Your task to perform on an android device: turn pop-ups on in chrome Image 0: 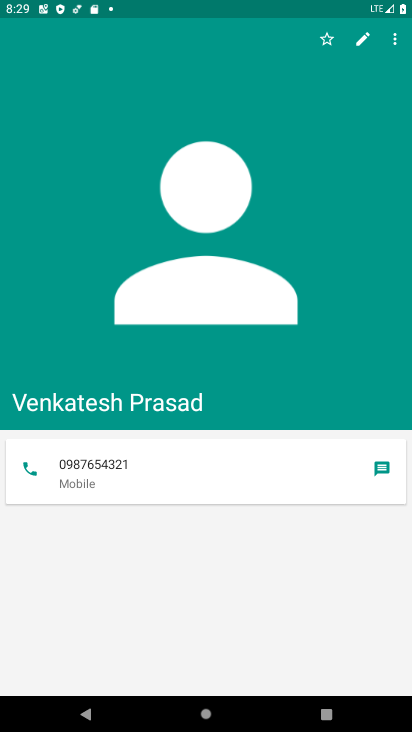
Step 0: press home button
Your task to perform on an android device: turn pop-ups on in chrome Image 1: 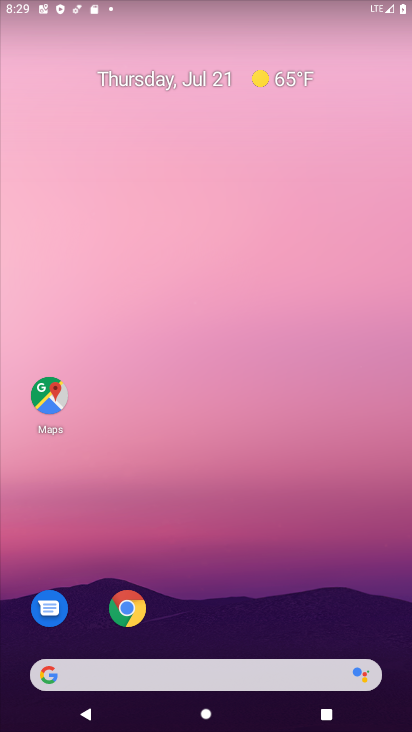
Step 1: click (125, 610)
Your task to perform on an android device: turn pop-ups on in chrome Image 2: 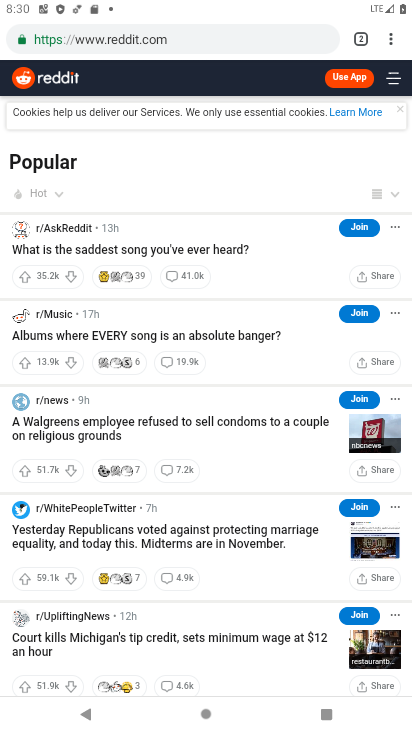
Step 2: click (390, 38)
Your task to perform on an android device: turn pop-ups on in chrome Image 3: 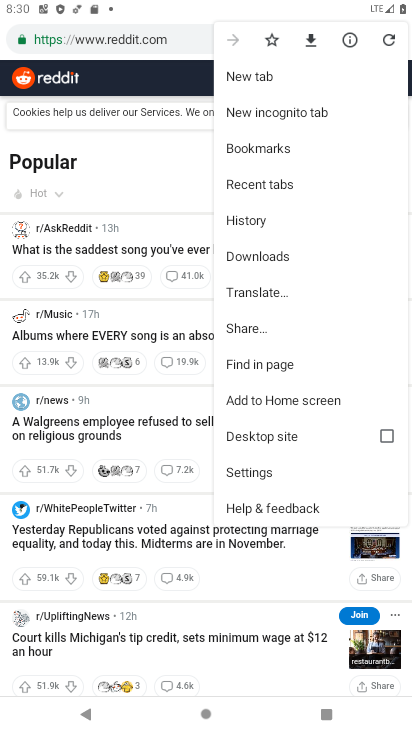
Step 3: click (254, 471)
Your task to perform on an android device: turn pop-ups on in chrome Image 4: 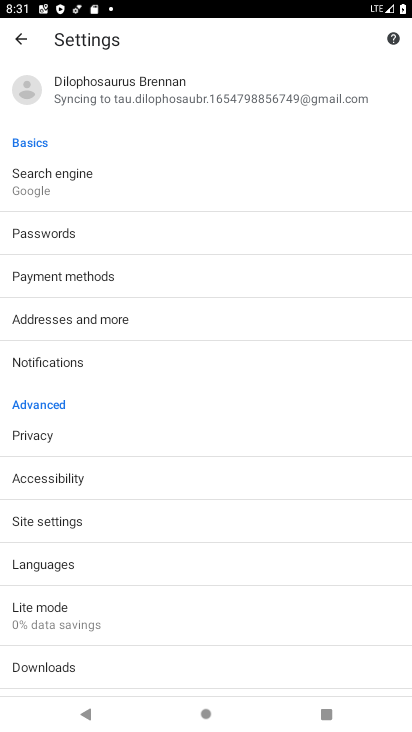
Step 4: click (41, 521)
Your task to perform on an android device: turn pop-ups on in chrome Image 5: 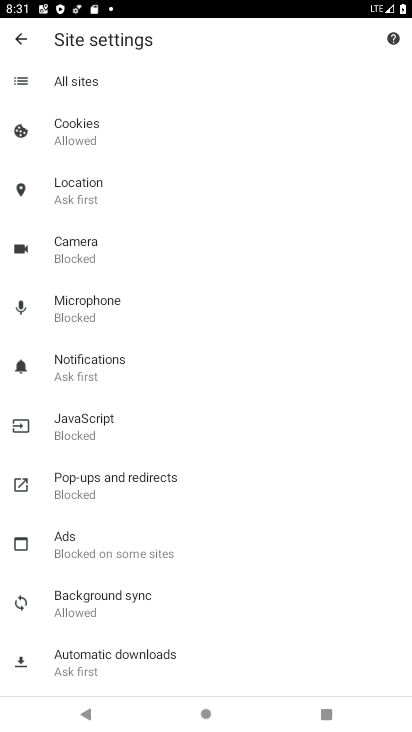
Step 5: click (81, 489)
Your task to perform on an android device: turn pop-ups on in chrome Image 6: 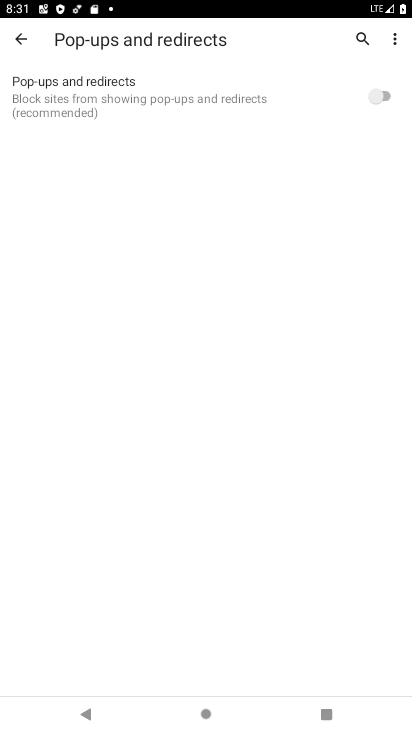
Step 6: click (377, 98)
Your task to perform on an android device: turn pop-ups on in chrome Image 7: 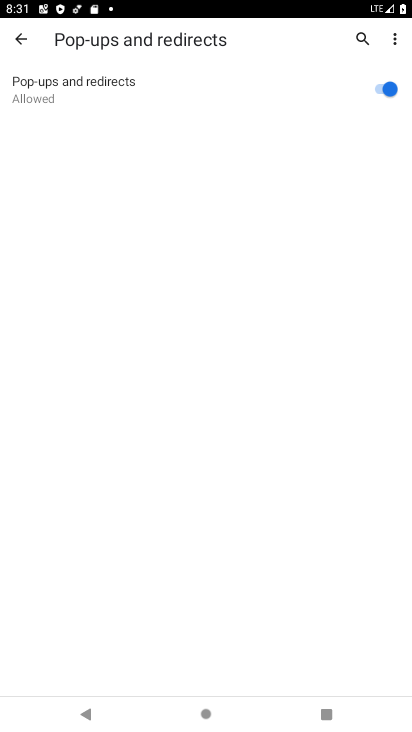
Step 7: task complete